Your task to perform on an android device: turn off location Image 0: 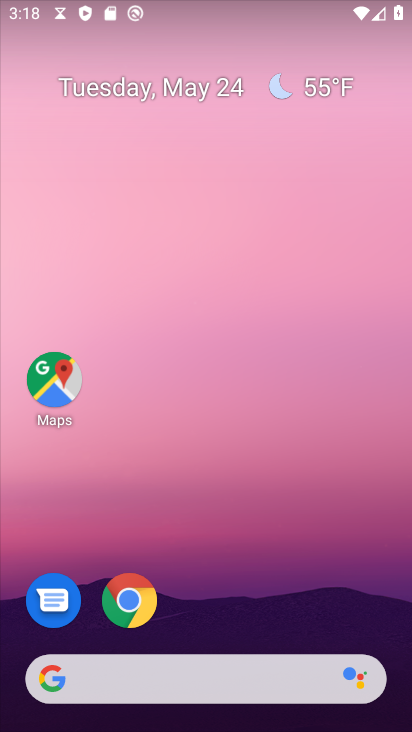
Step 0: drag from (203, 671) to (226, 158)
Your task to perform on an android device: turn off location Image 1: 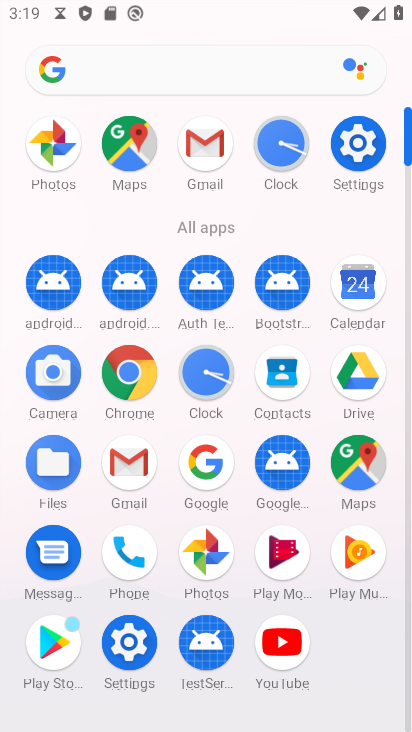
Step 1: click (359, 156)
Your task to perform on an android device: turn off location Image 2: 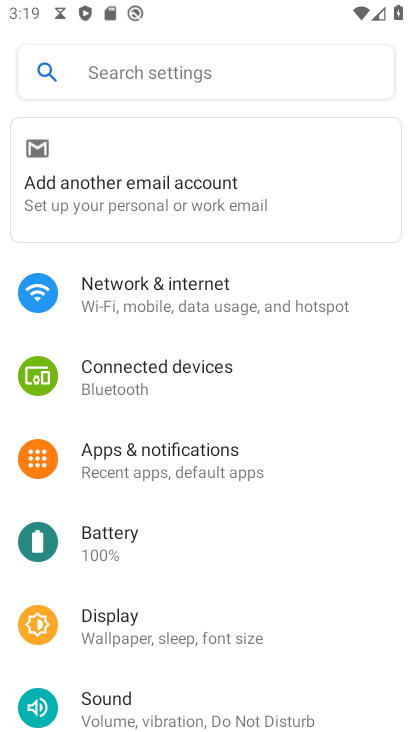
Step 2: drag from (125, 668) to (170, 173)
Your task to perform on an android device: turn off location Image 3: 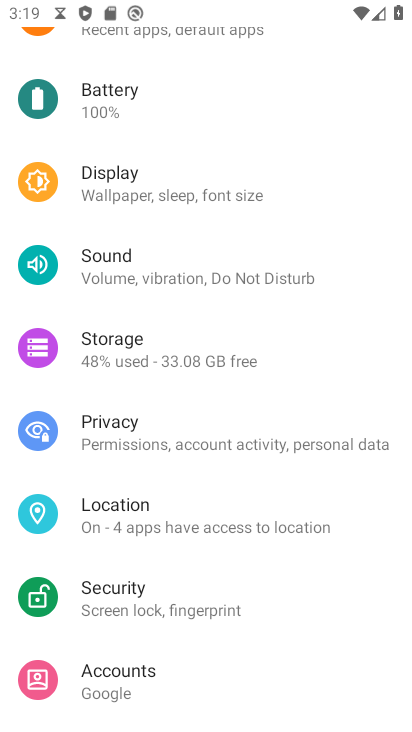
Step 3: drag from (164, 604) to (197, 138)
Your task to perform on an android device: turn off location Image 4: 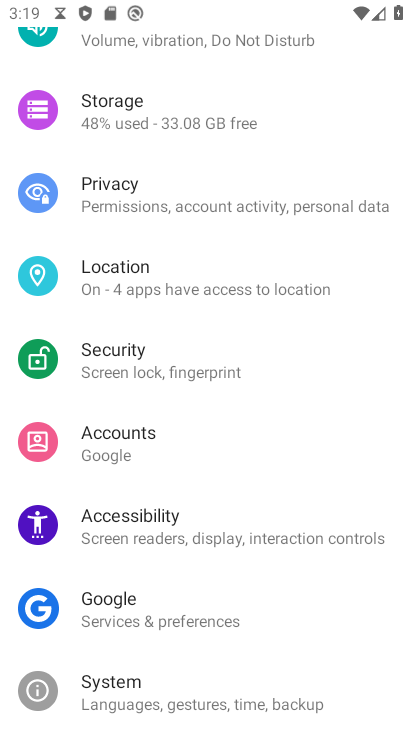
Step 4: click (121, 264)
Your task to perform on an android device: turn off location Image 5: 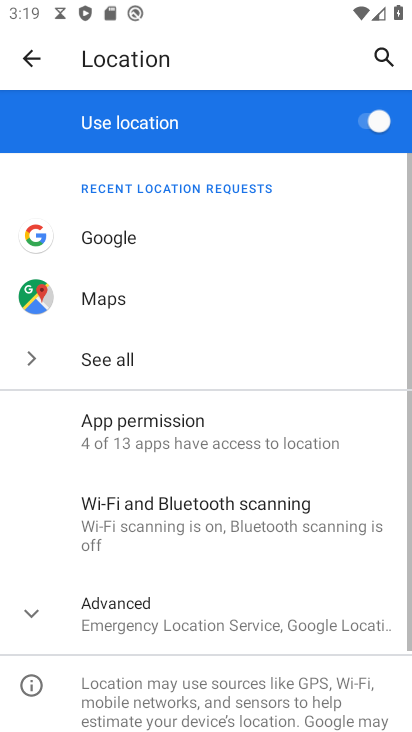
Step 5: click (376, 123)
Your task to perform on an android device: turn off location Image 6: 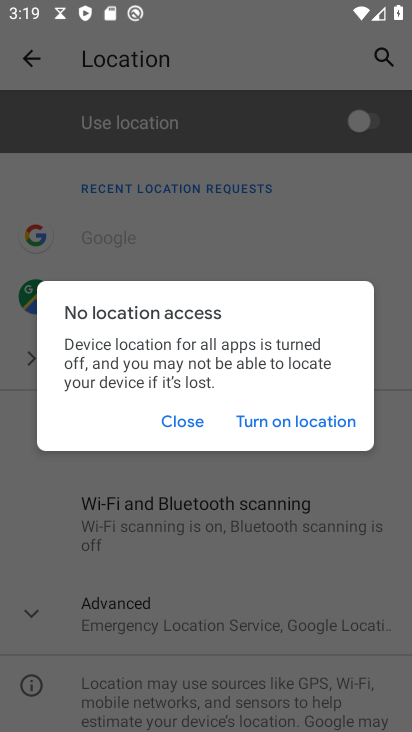
Step 6: task complete